Your task to perform on an android device: turn off translation in the chrome app Image 0: 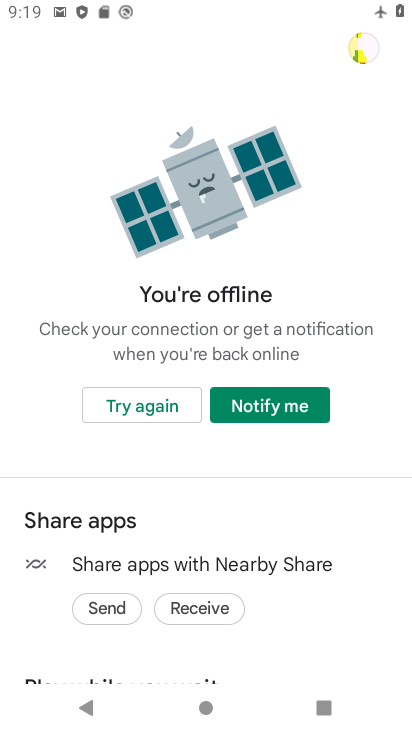
Step 0: press home button
Your task to perform on an android device: turn off translation in the chrome app Image 1: 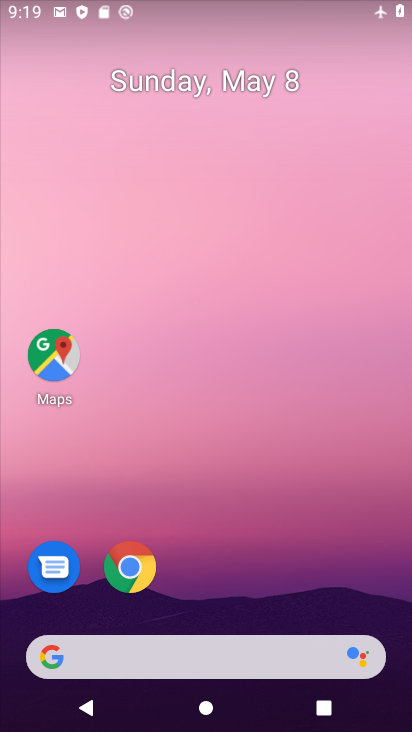
Step 1: click (130, 569)
Your task to perform on an android device: turn off translation in the chrome app Image 2: 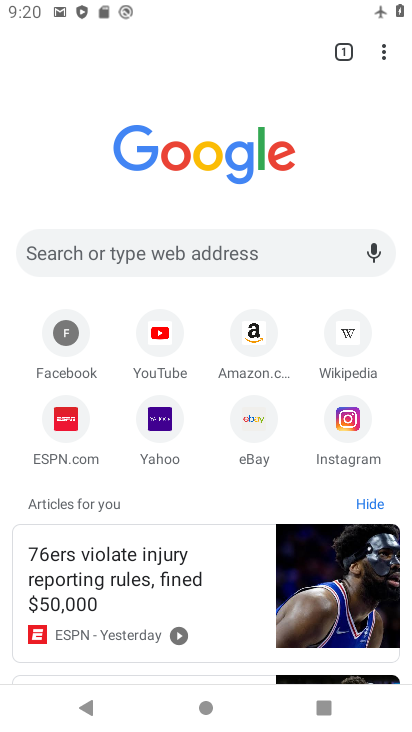
Step 2: click (383, 54)
Your task to perform on an android device: turn off translation in the chrome app Image 3: 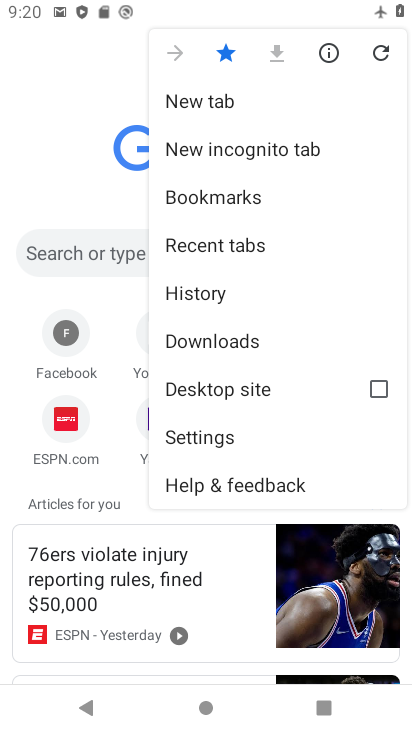
Step 3: click (209, 437)
Your task to perform on an android device: turn off translation in the chrome app Image 4: 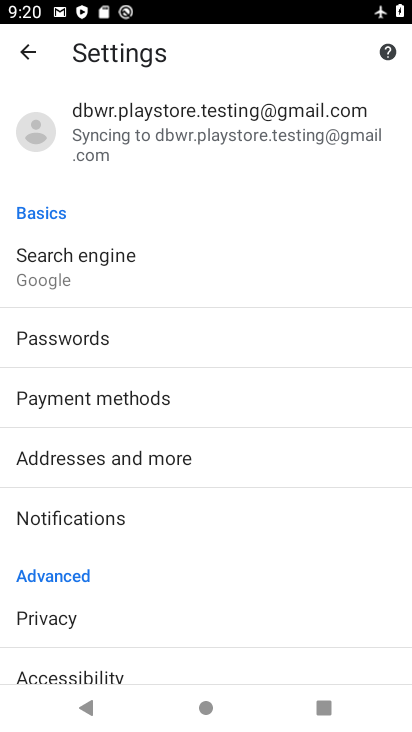
Step 4: drag from (142, 654) to (149, 388)
Your task to perform on an android device: turn off translation in the chrome app Image 5: 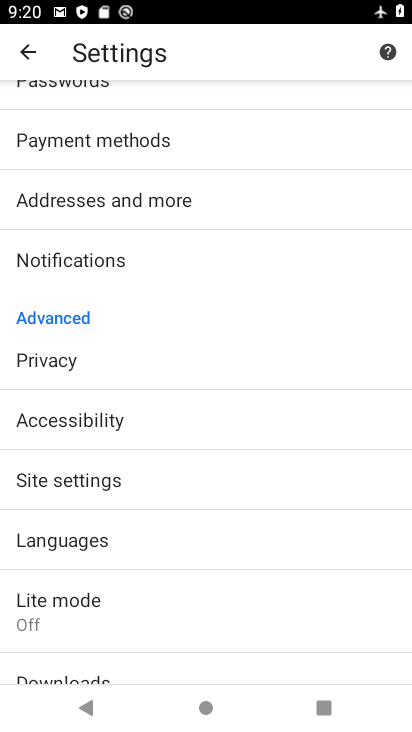
Step 5: click (82, 540)
Your task to perform on an android device: turn off translation in the chrome app Image 6: 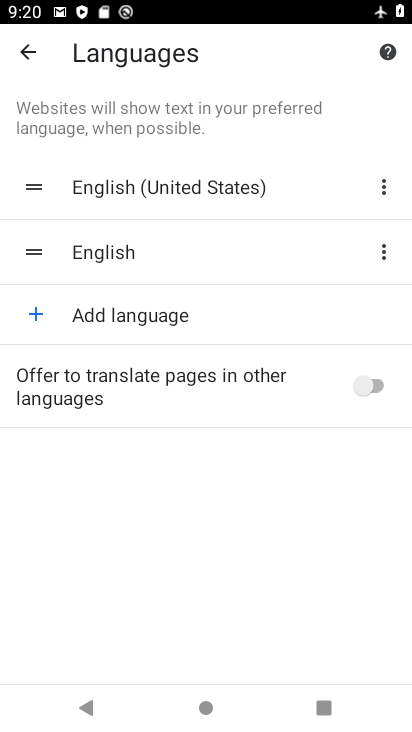
Step 6: task complete